Your task to perform on an android device: install app "Yahoo Mail" Image 0: 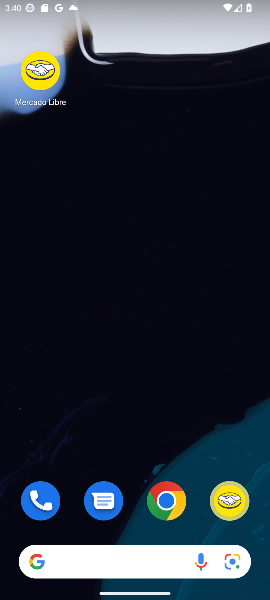
Step 0: drag from (145, 448) to (104, 57)
Your task to perform on an android device: install app "Yahoo Mail" Image 1: 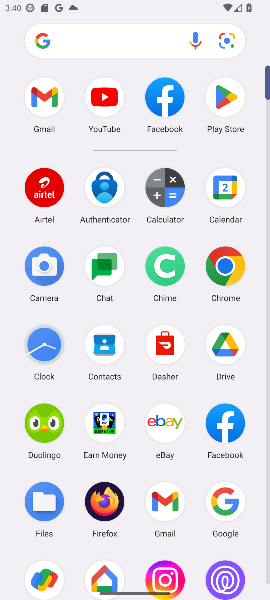
Step 1: click (212, 99)
Your task to perform on an android device: install app "Yahoo Mail" Image 2: 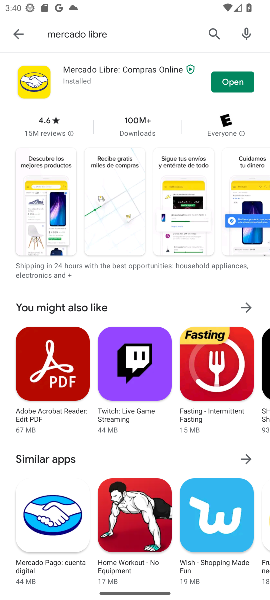
Step 2: click (212, 27)
Your task to perform on an android device: install app "Yahoo Mail" Image 3: 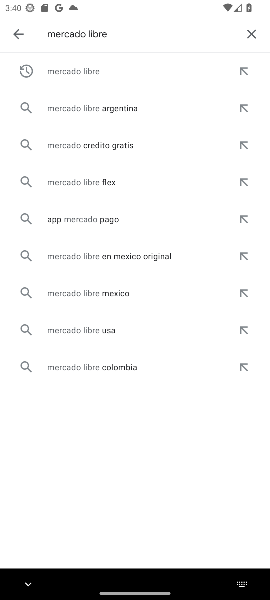
Step 3: click (253, 37)
Your task to perform on an android device: install app "Yahoo Mail" Image 4: 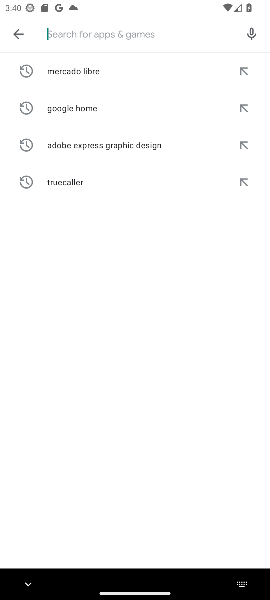
Step 4: type "Yahoo Mail"
Your task to perform on an android device: install app "Yahoo Mail" Image 5: 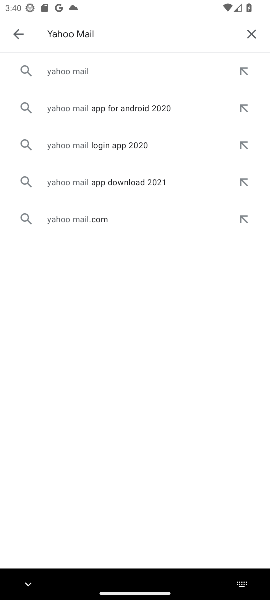
Step 5: click (70, 77)
Your task to perform on an android device: install app "Yahoo Mail" Image 6: 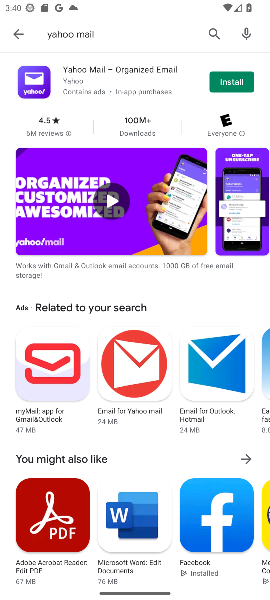
Step 6: click (226, 84)
Your task to perform on an android device: install app "Yahoo Mail" Image 7: 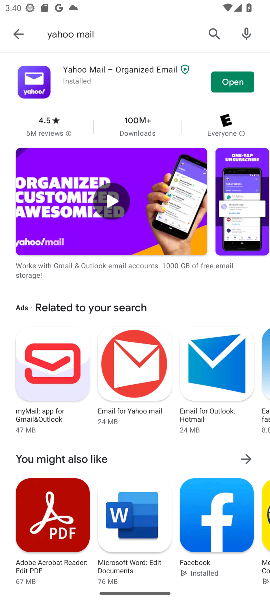
Step 7: task complete